Your task to perform on an android device: Toggle the flashlight Image 0: 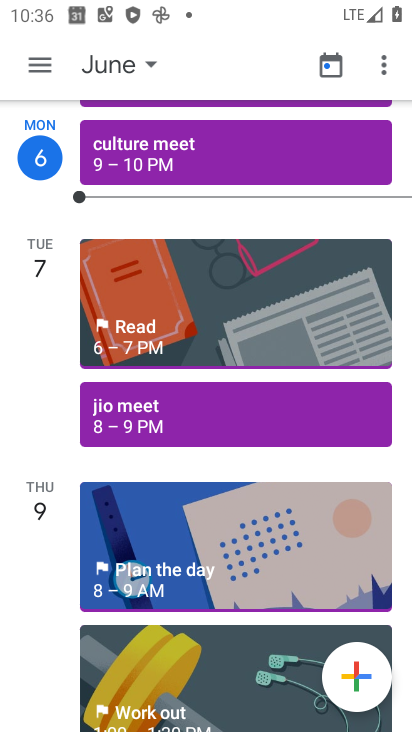
Step 0: drag from (235, 40) to (287, 3)
Your task to perform on an android device: Toggle the flashlight Image 1: 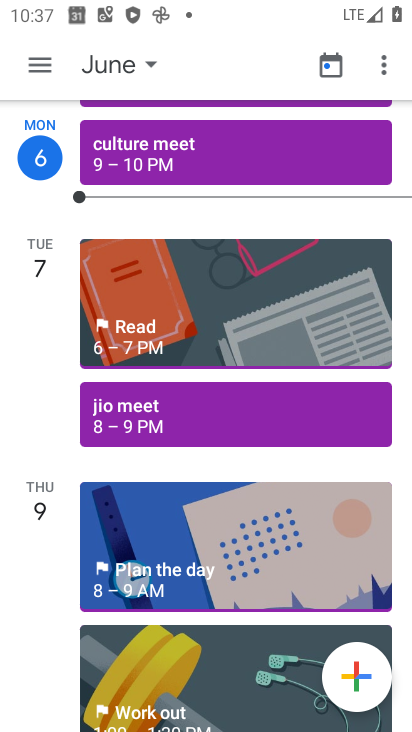
Step 1: click (321, 727)
Your task to perform on an android device: Toggle the flashlight Image 2: 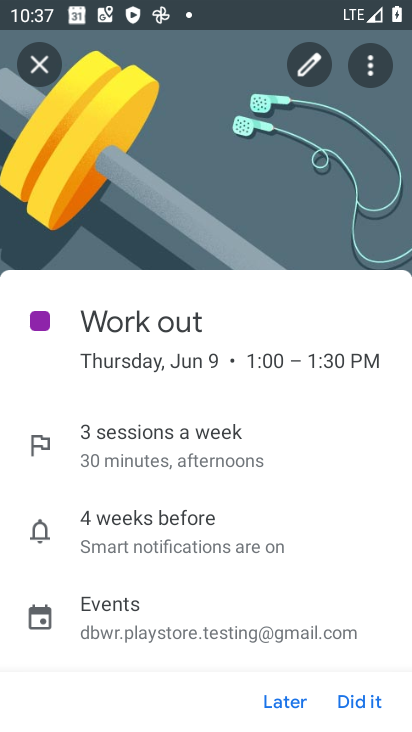
Step 2: task complete